Your task to perform on an android device: set the stopwatch Image 0: 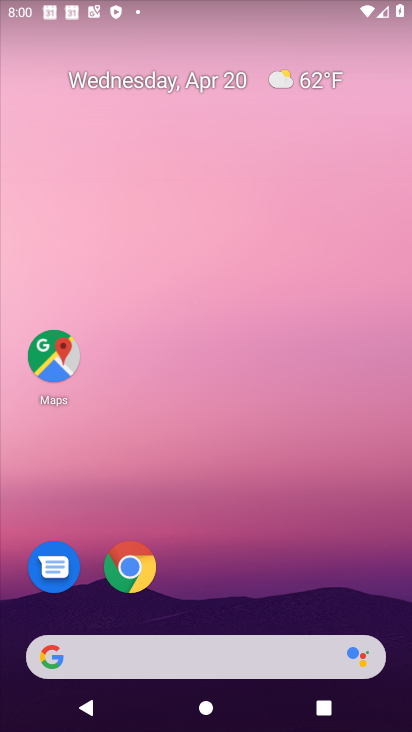
Step 0: drag from (165, 642) to (157, 44)
Your task to perform on an android device: set the stopwatch Image 1: 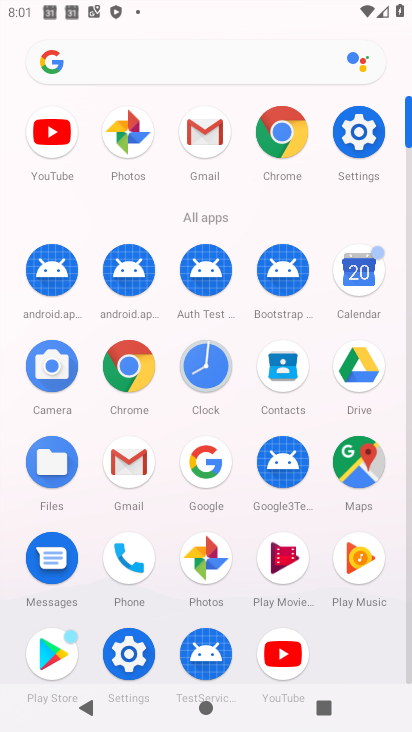
Step 1: click (209, 360)
Your task to perform on an android device: set the stopwatch Image 2: 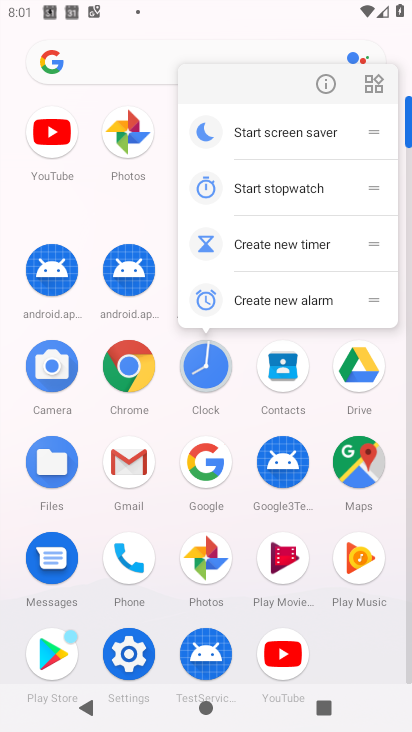
Step 2: click (294, 193)
Your task to perform on an android device: set the stopwatch Image 3: 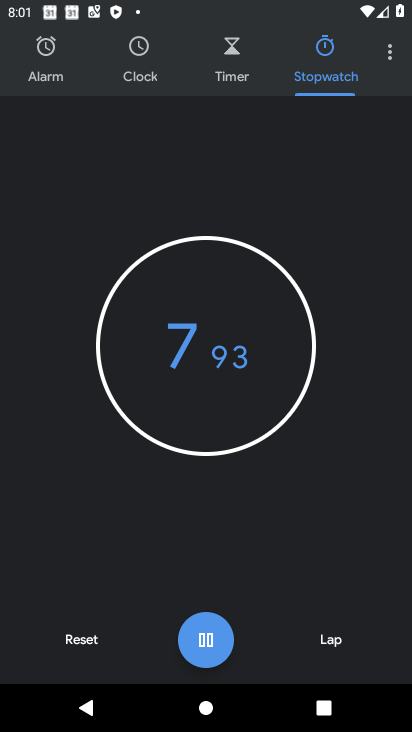
Step 3: task complete